Your task to perform on an android device: open app "Airtel Thanks" (install if not already installed) Image 0: 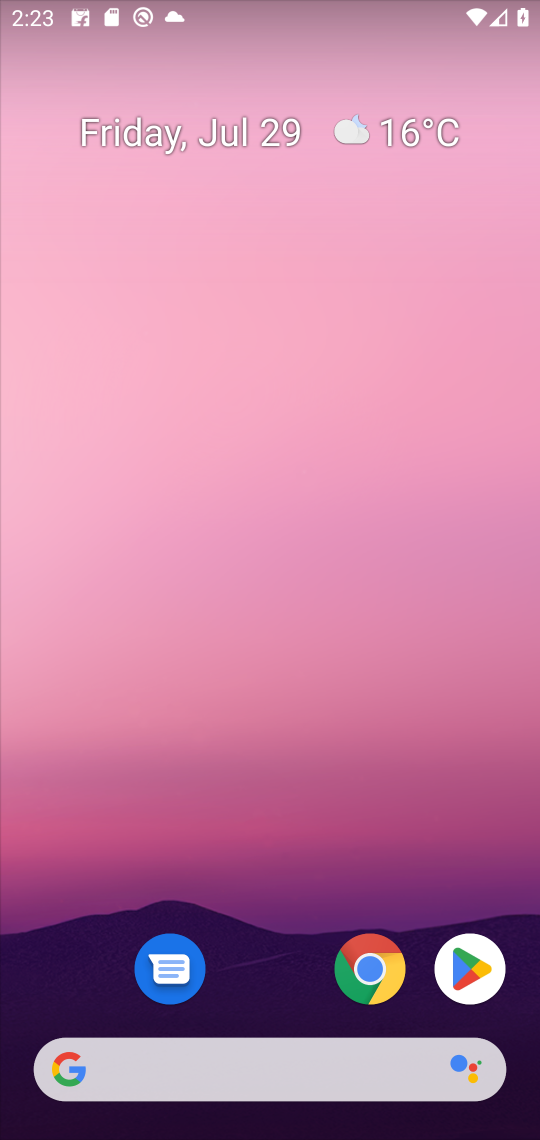
Step 0: press home button
Your task to perform on an android device: open app "Airtel Thanks" (install if not already installed) Image 1: 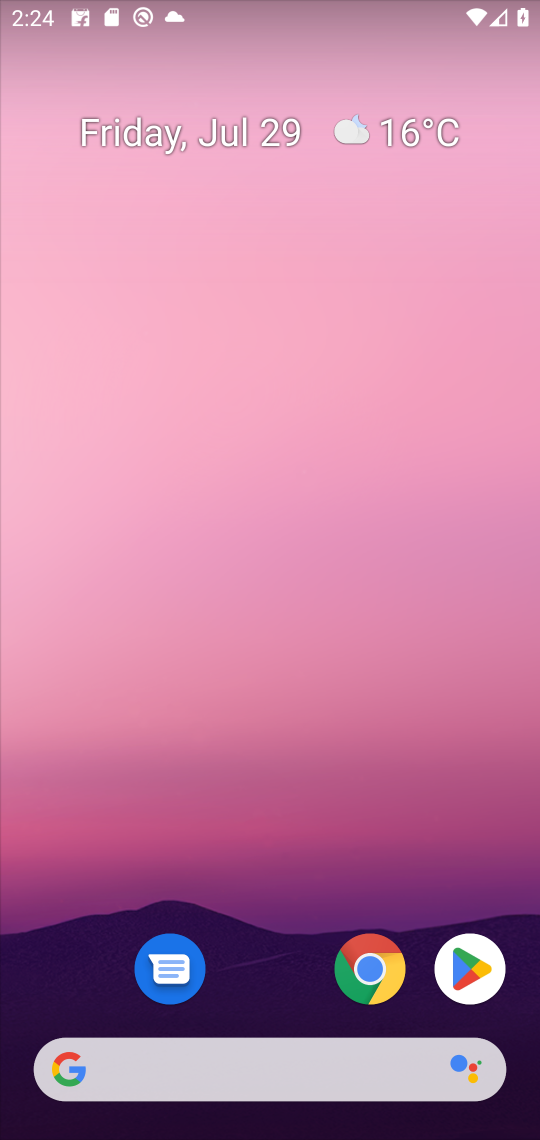
Step 1: click (465, 975)
Your task to perform on an android device: open app "Airtel Thanks" (install if not already installed) Image 2: 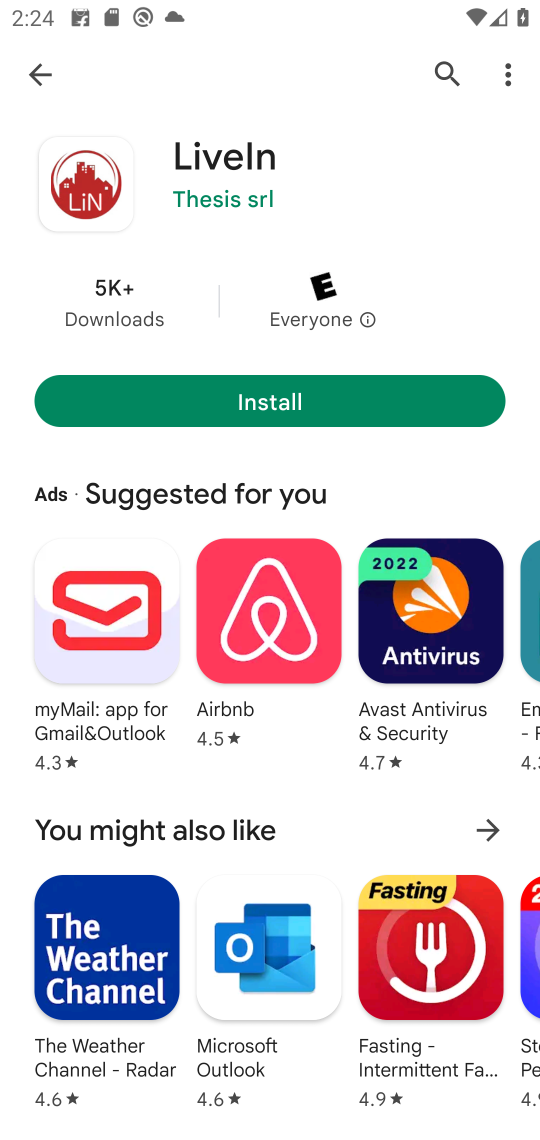
Step 2: click (462, 72)
Your task to perform on an android device: open app "Airtel Thanks" (install if not already installed) Image 3: 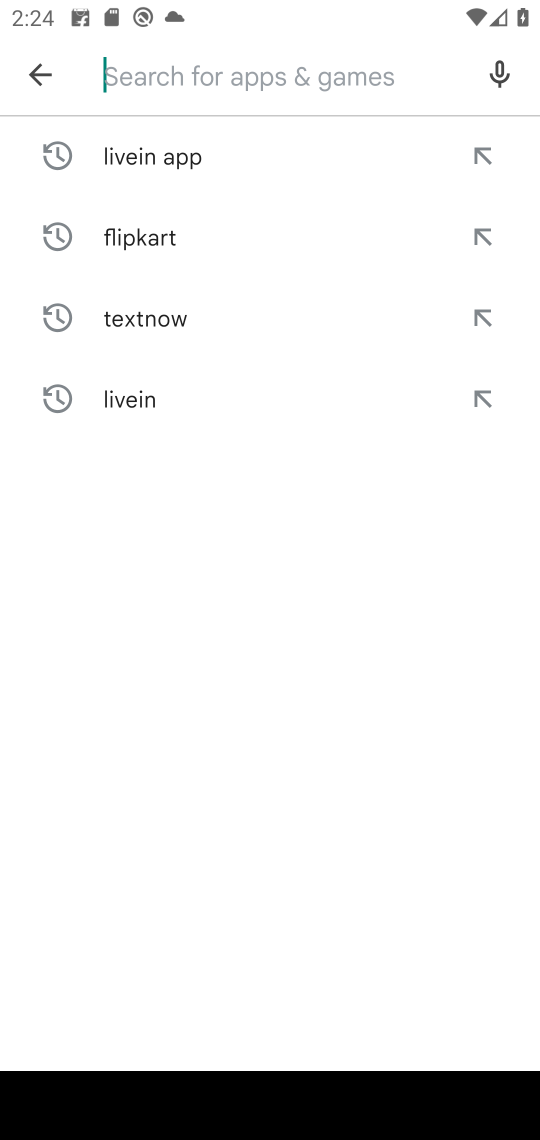
Step 3: type "airtel thanks"
Your task to perform on an android device: open app "Airtel Thanks" (install if not already installed) Image 4: 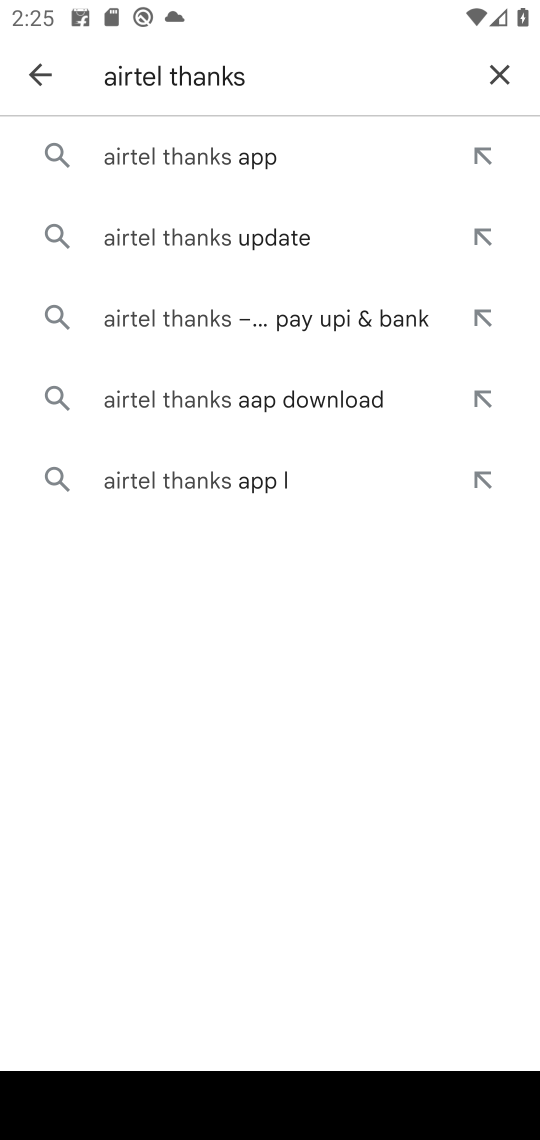
Step 4: click (144, 181)
Your task to perform on an android device: open app "Airtel Thanks" (install if not already installed) Image 5: 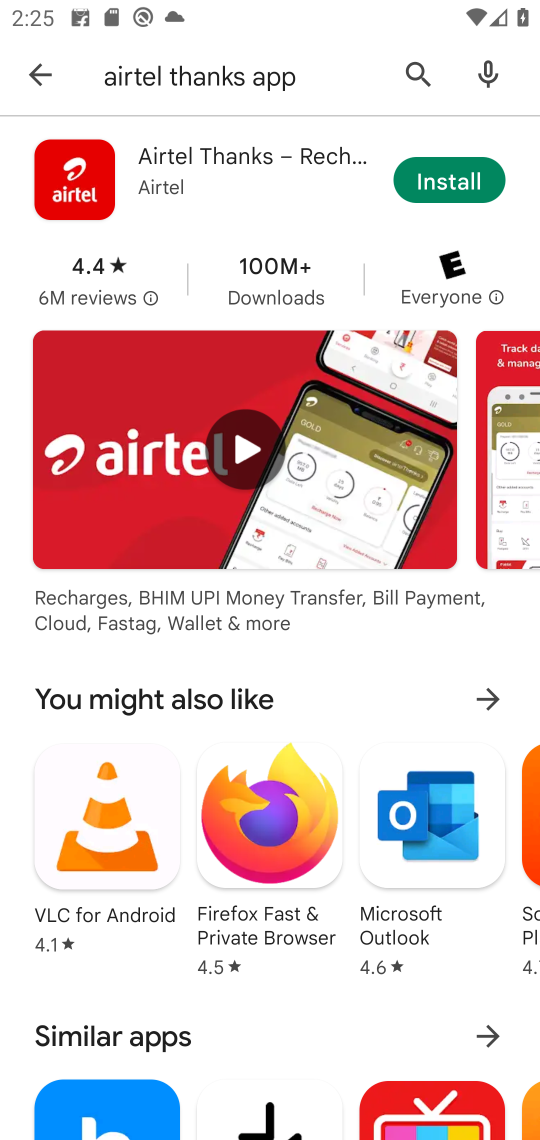
Step 5: click (433, 178)
Your task to perform on an android device: open app "Airtel Thanks" (install if not already installed) Image 6: 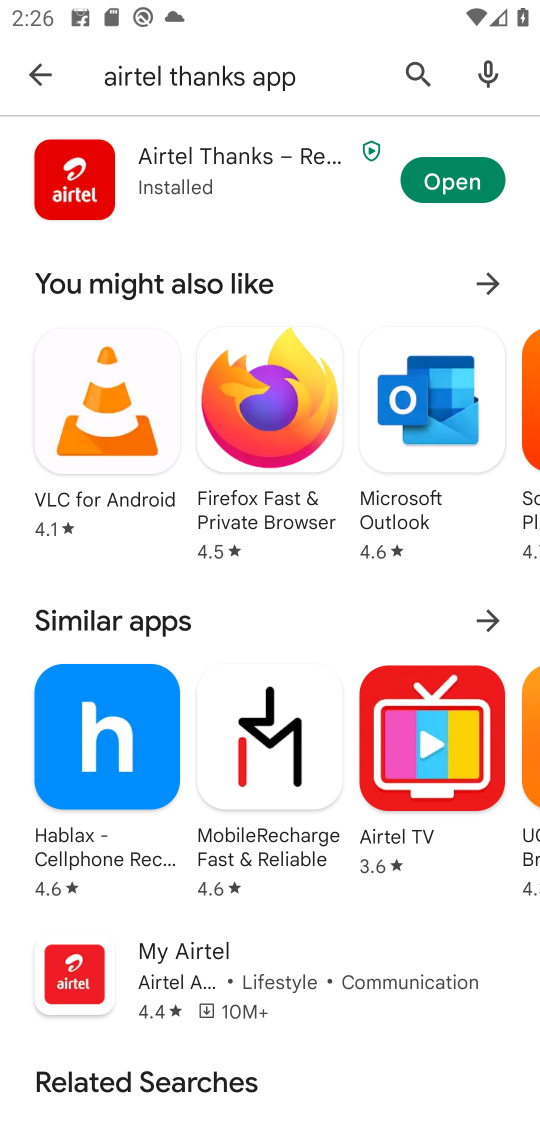
Step 6: click (410, 180)
Your task to perform on an android device: open app "Airtel Thanks" (install if not already installed) Image 7: 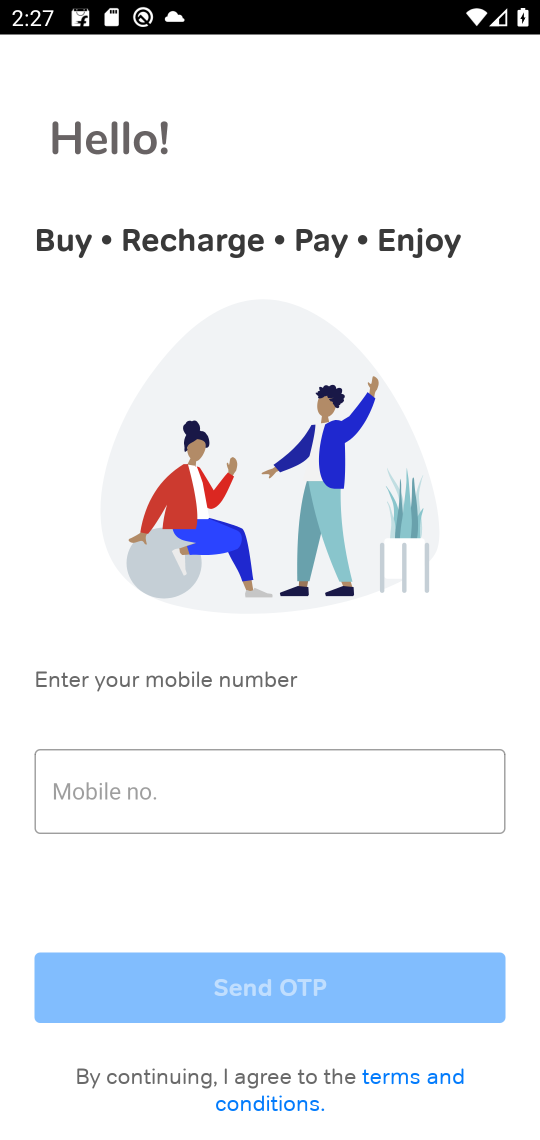
Step 7: task complete